Your task to perform on an android device: Turn on the flashlight Image 0: 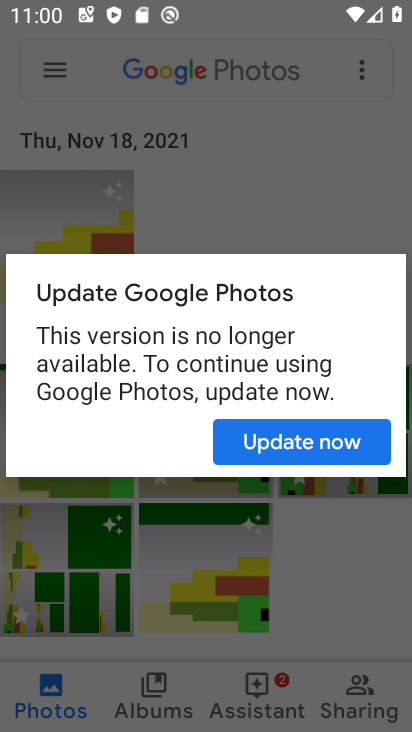
Step 0: press home button
Your task to perform on an android device: Turn on the flashlight Image 1: 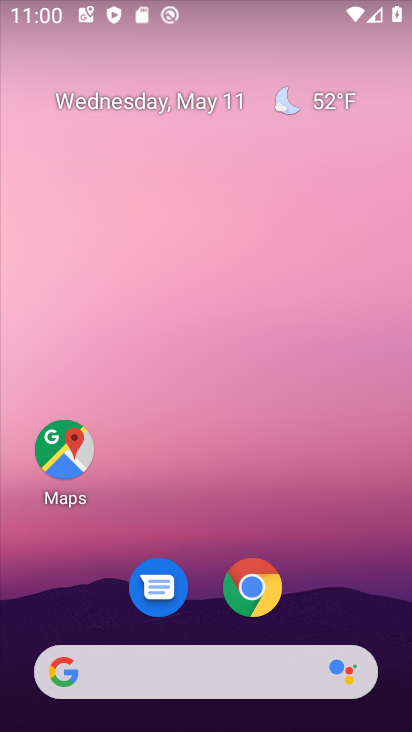
Step 1: drag from (228, 712) to (304, 229)
Your task to perform on an android device: Turn on the flashlight Image 2: 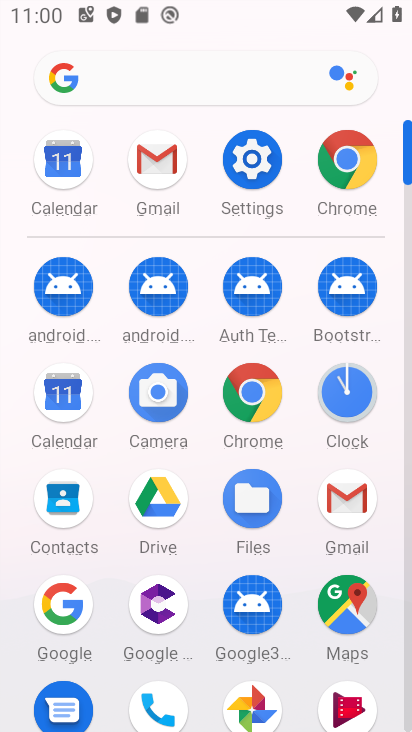
Step 2: click (254, 166)
Your task to perform on an android device: Turn on the flashlight Image 3: 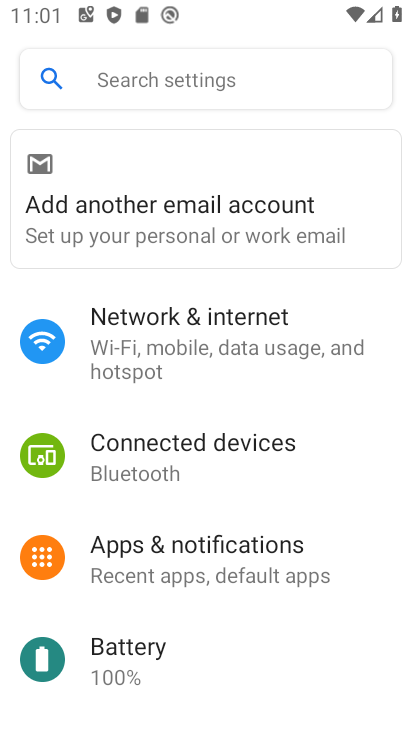
Step 3: click (146, 92)
Your task to perform on an android device: Turn on the flashlight Image 4: 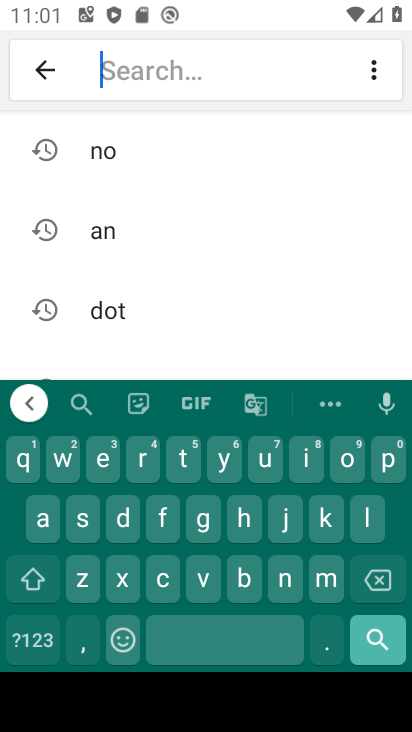
Step 4: click (160, 528)
Your task to perform on an android device: Turn on the flashlight Image 5: 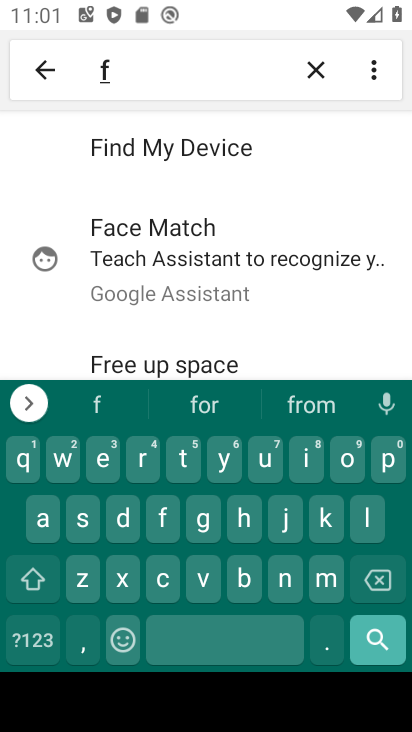
Step 5: click (361, 530)
Your task to perform on an android device: Turn on the flashlight Image 6: 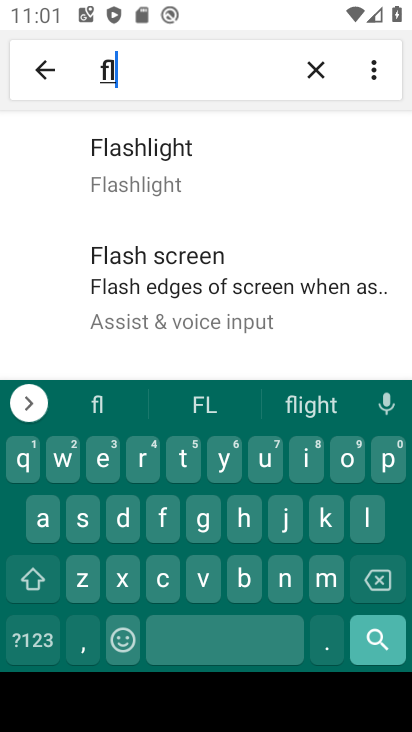
Step 6: click (201, 174)
Your task to perform on an android device: Turn on the flashlight Image 7: 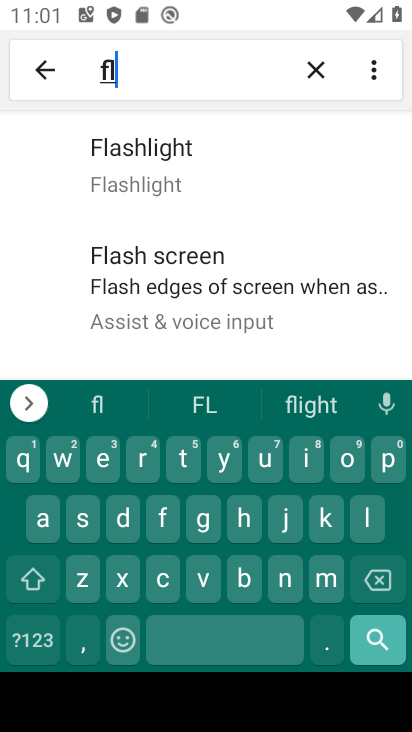
Step 7: click (201, 174)
Your task to perform on an android device: Turn on the flashlight Image 8: 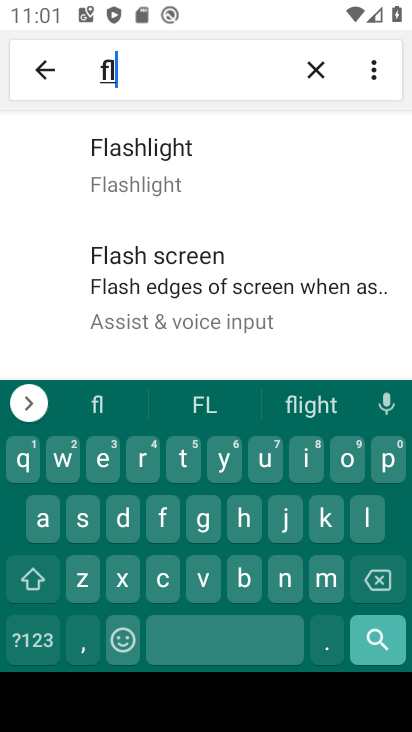
Step 8: task complete